Your task to perform on an android device: open the mobile data screen to see how much data has been used Image 0: 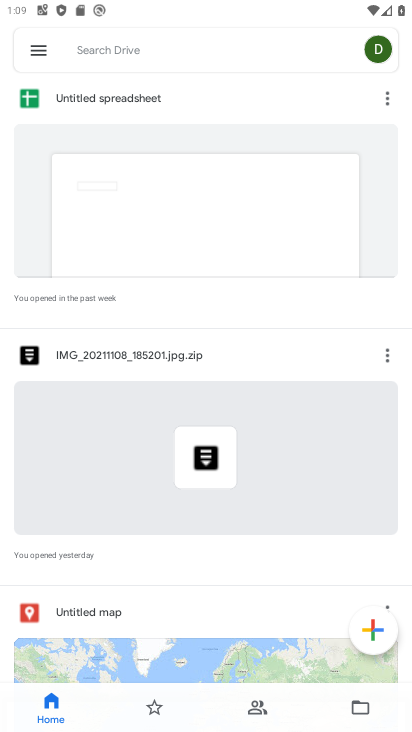
Step 0: press home button
Your task to perform on an android device: open the mobile data screen to see how much data has been used Image 1: 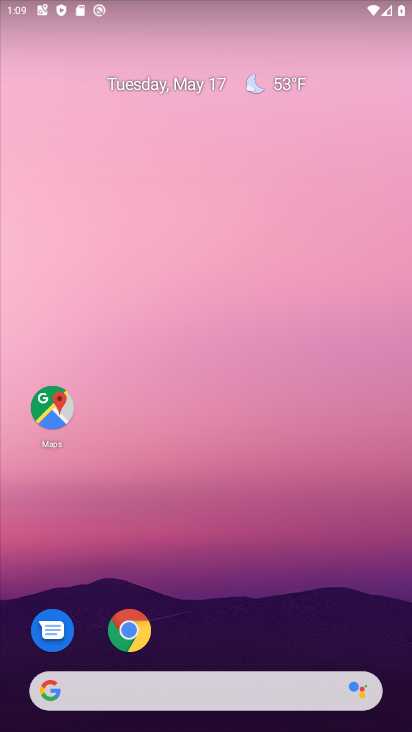
Step 1: drag from (256, 662) to (273, 466)
Your task to perform on an android device: open the mobile data screen to see how much data has been used Image 2: 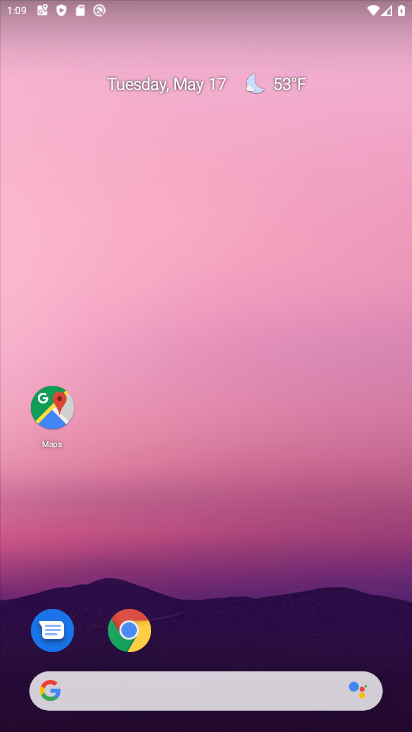
Step 2: drag from (173, 628) to (187, 272)
Your task to perform on an android device: open the mobile data screen to see how much data has been used Image 3: 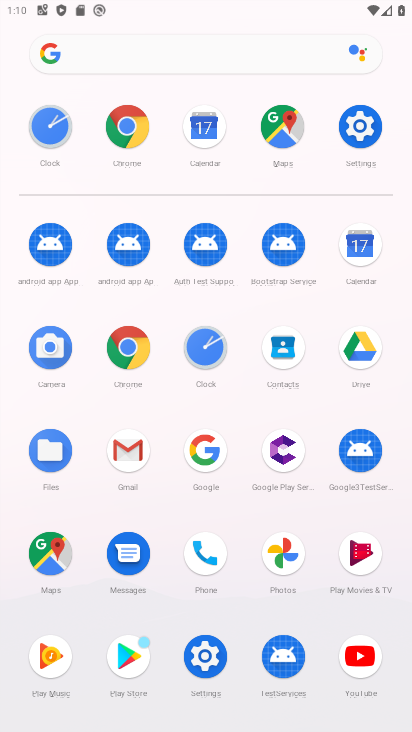
Step 3: click (366, 154)
Your task to perform on an android device: open the mobile data screen to see how much data has been used Image 4: 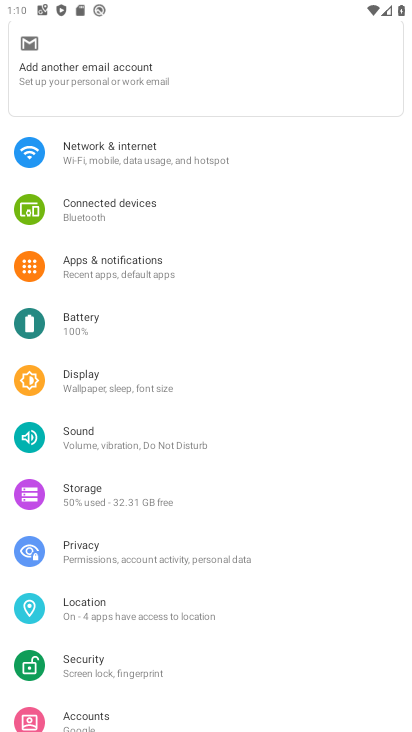
Step 4: click (202, 161)
Your task to perform on an android device: open the mobile data screen to see how much data has been used Image 5: 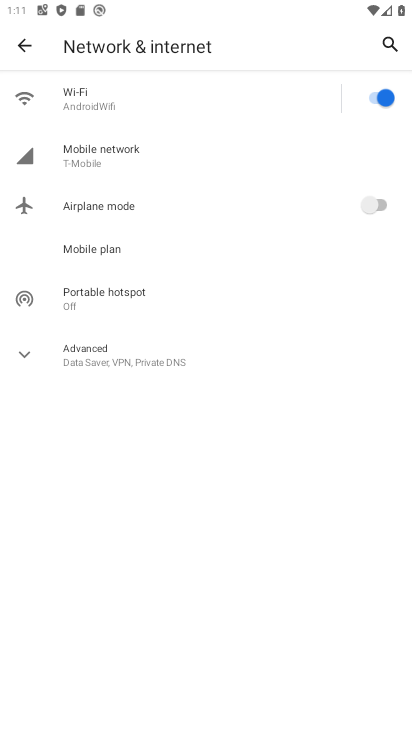
Step 5: click (200, 165)
Your task to perform on an android device: open the mobile data screen to see how much data has been used Image 6: 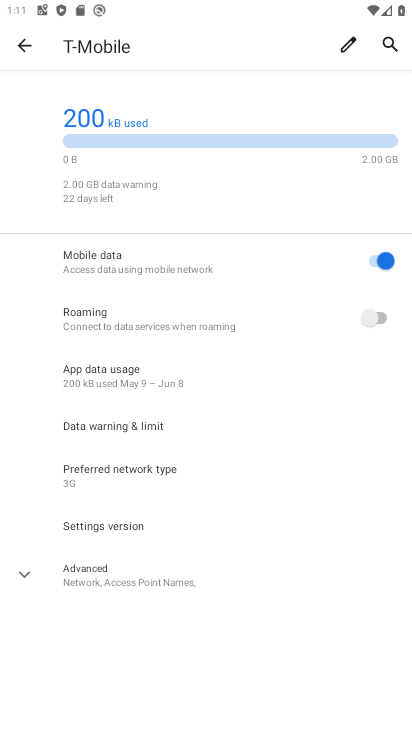
Step 6: click (194, 388)
Your task to perform on an android device: open the mobile data screen to see how much data has been used Image 7: 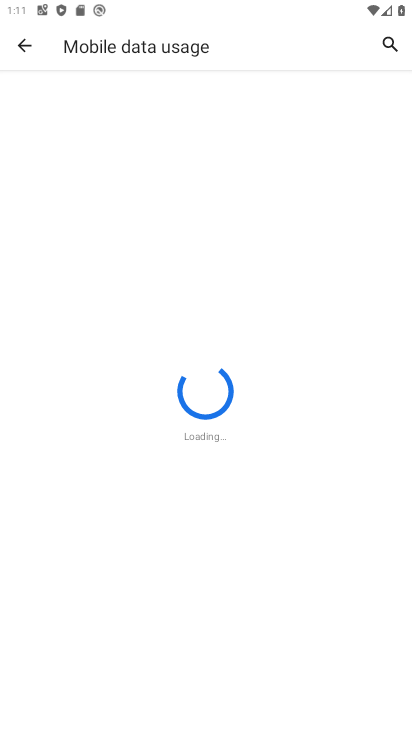
Step 7: task complete